Your task to perform on an android device: toggle airplane mode Image 0: 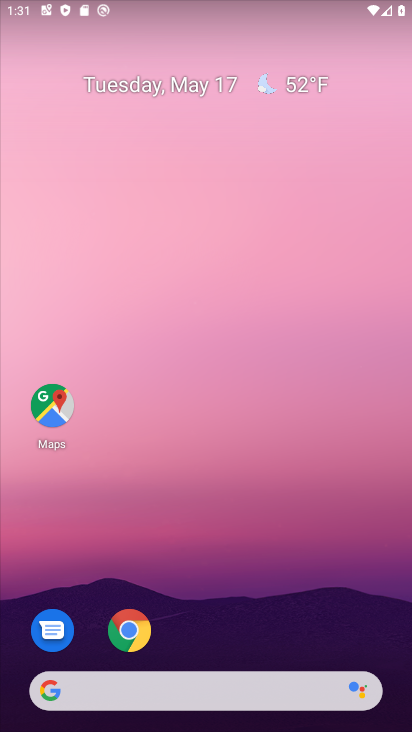
Step 0: drag from (353, 37) to (278, 524)
Your task to perform on an android device: toggle airplane mode Image 1: 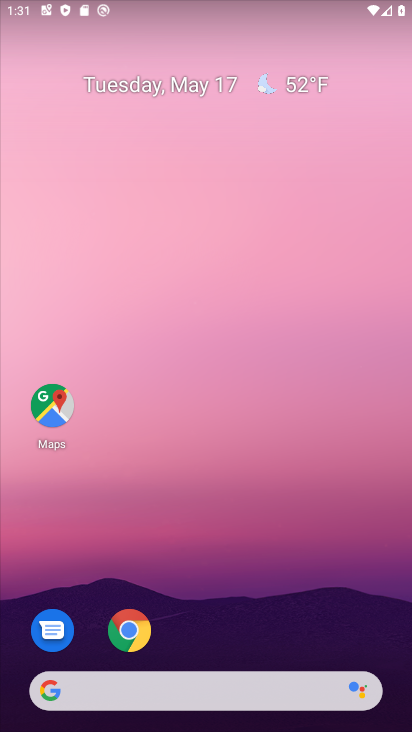
Step 1: drag from (372, 11) to (284, 550)
Your task to perform on an android device: toggle airplane mode Image 2: 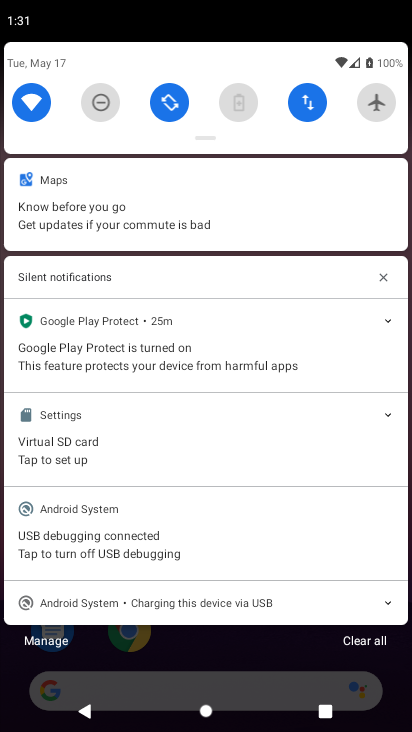
Step 2: click (381, 105)
Your task to perform on an android device: toggle airplane mode Image 3: 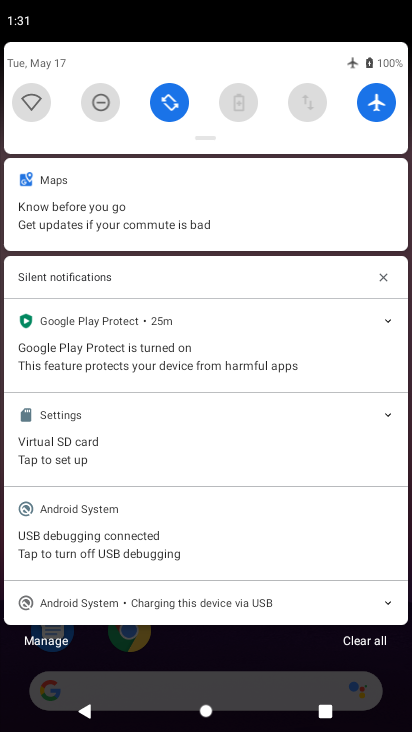
Step 3: task complete